Your task to perform on an android device: find photos in the google photos app Image 0: 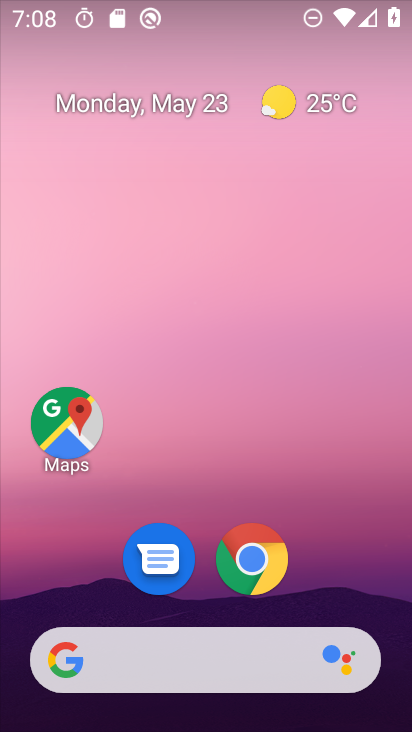
Step 0: drag from (384, 604) to (277, 87)
Your task to perform on an android device: find photos in the google photos app Image 1: 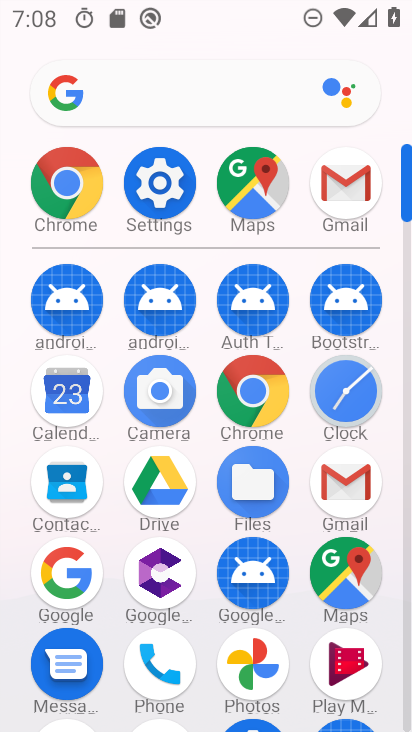
Step 1: click (235, 664)
Your task to perform on an android device: find photos in the google photos app Image 2: 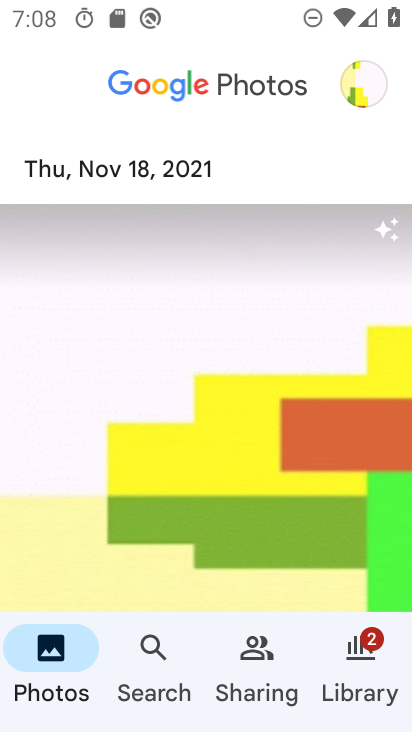
Step 2: task complete